Your task to perform on an android device: turn off notifications in google photos Image 0: 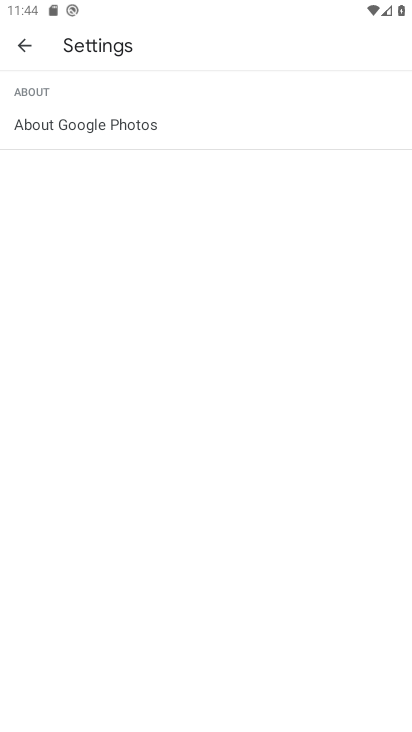
Step 0: press home button
Your task to perform on an android device: turn off notifications in google photos Image 1: 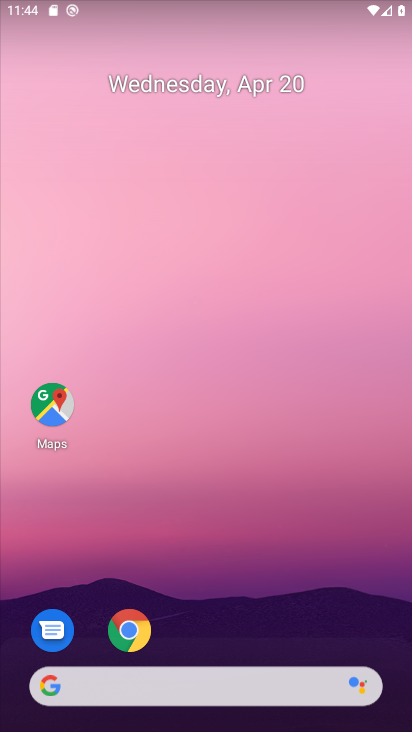
Step 1: drag from (141, 696) to (244, 193)
Your task to perform on an android device: turn off notifications in google photos Image 2: 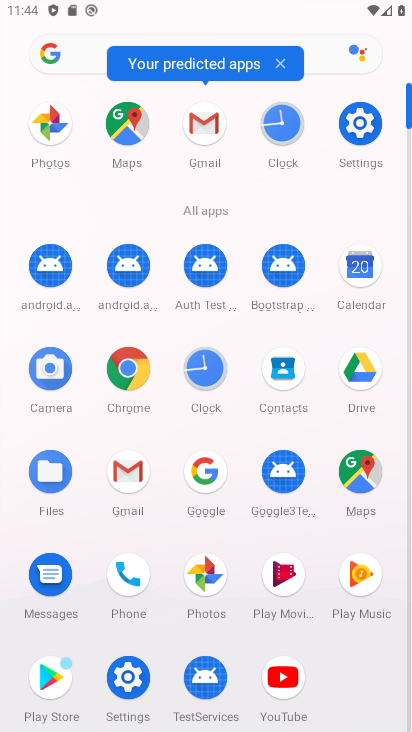
Step 2: click (53, 122)
Your task to perform on an android device: turn off notifications in google photos Image 3: 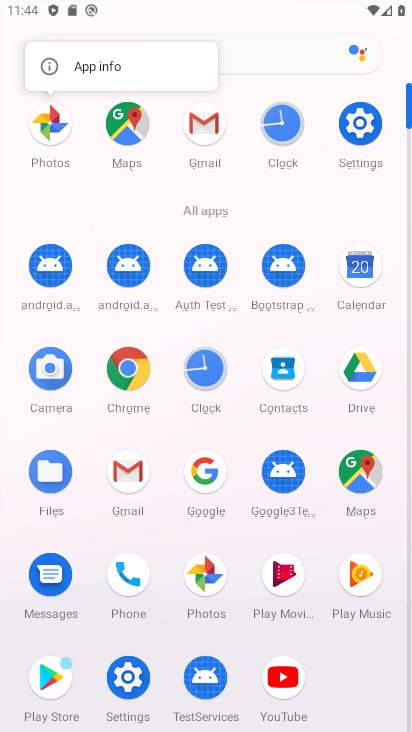
Step 3: click (53, 120)
Your task to perform on an android device: turn off notifications in google photos Image 4: 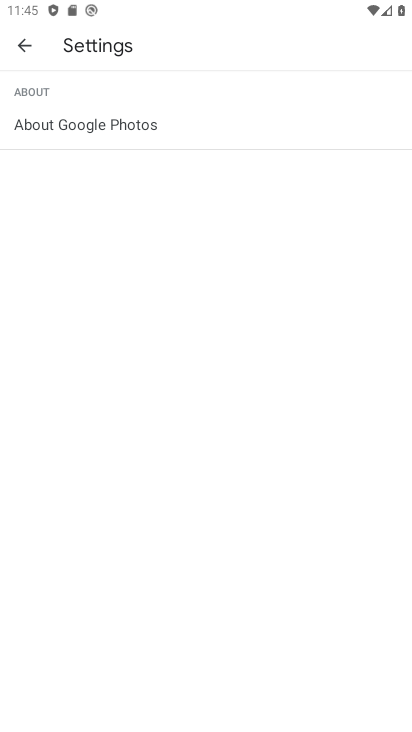
Step 4: click (27, 43)
Your task to perform on an android device: turn off notifications in google photos Image 5: 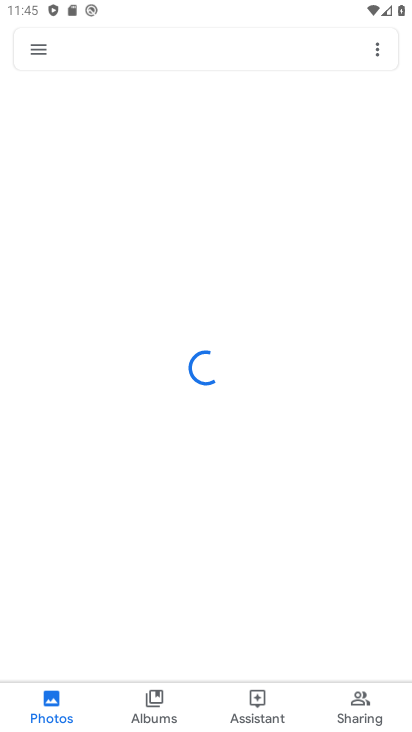
Step 5: click (40, 49)
Your task to perform on an android device: turn off notifications in google photos Image 6: 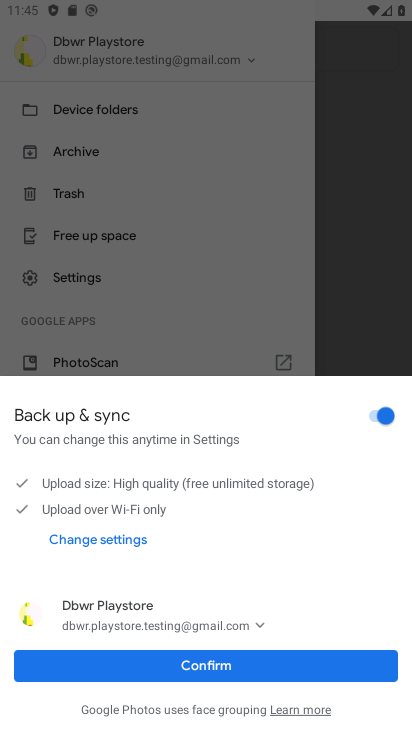
Step 6: click (216, 665)
Your task to perform on an android device: turn off notifications in google photos Image 7: 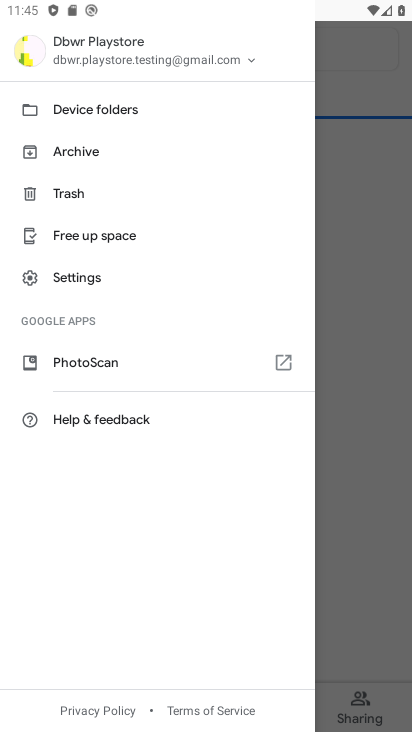
Step 7: click (58, 271)
Your task to perform on an android device: turn off notifications in google photos Image 8: 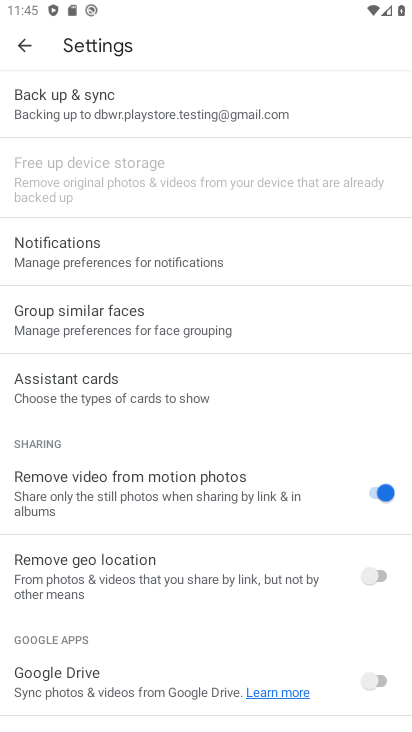
Step 8: click (86, 248)
Your task to perform on an android device: turn off notifications in google photos Image 9: 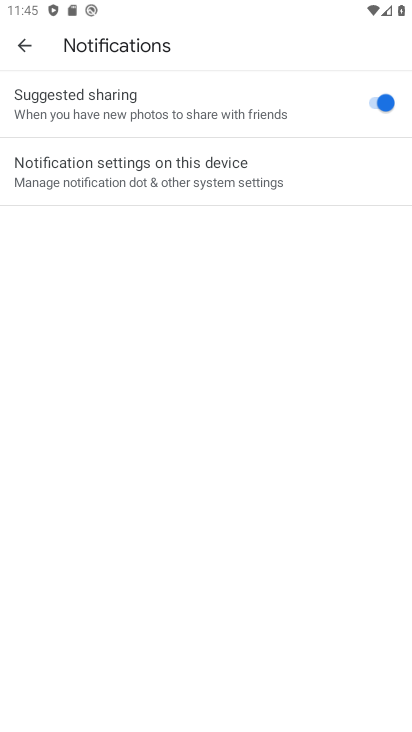
Step 9: click (120, 174)
Your task to perform on an android device: turn off notifications in google photos Image 10: 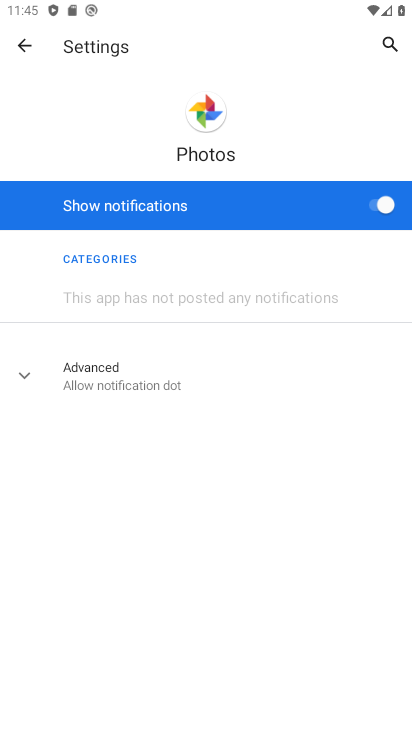
Step 10: click (378, 204)
Your task to perform on an android device: turn off notifications in google photos Image 11: 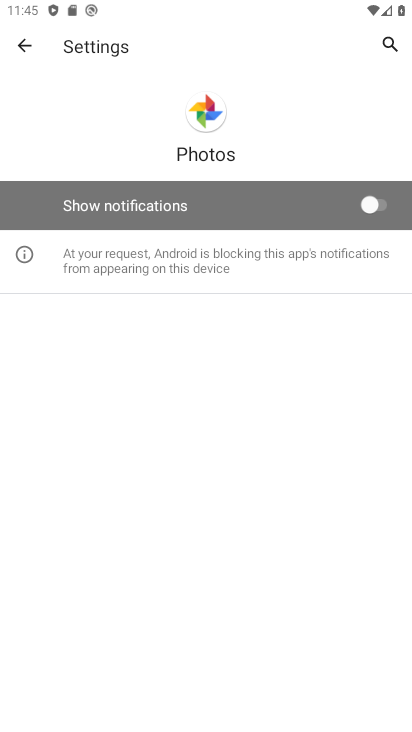
Step 11: task complete